Your task to perform on an android device: Open the files app Image 0: 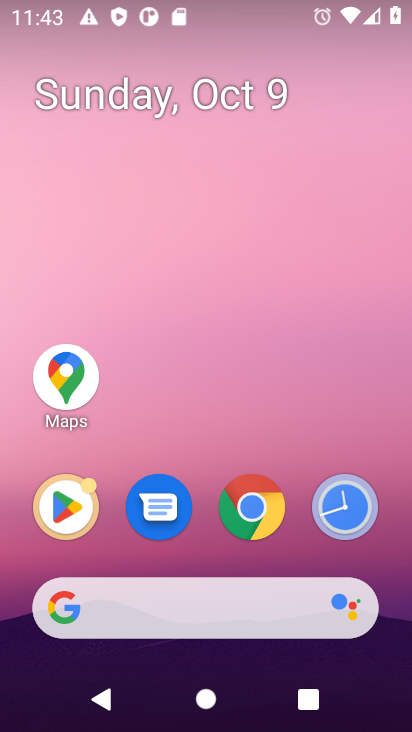
Step 0: drag from (383, 407) to (391, 25)
Your task to perform on an android device: Open the files app Image 1: 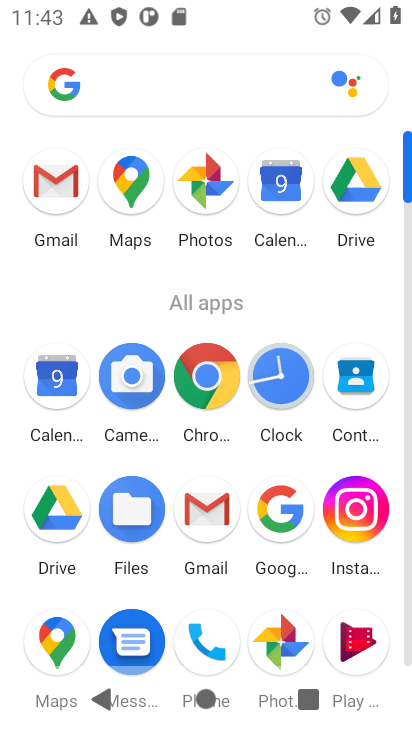
Step 1: drag from (382, 321) to (376, 73)
Your task to perform on an android device: Open the files app Image 2: 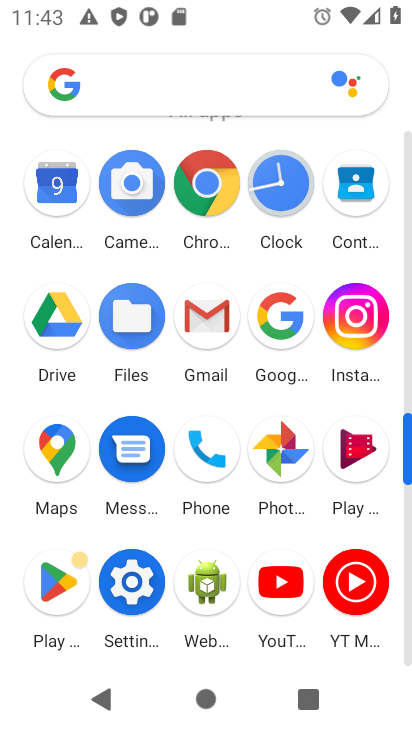
Step 2: click (64, 583)
Your task to perform on an android device: Open the files app Image 3: 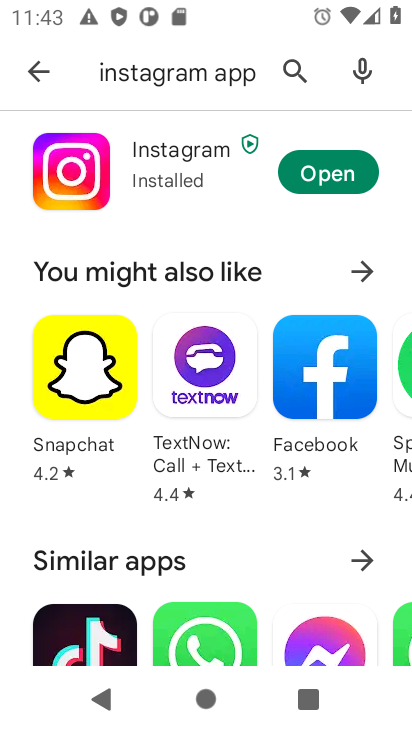
Step 3: press back button
Your task to perform on an android device: Open the files app Image 4: 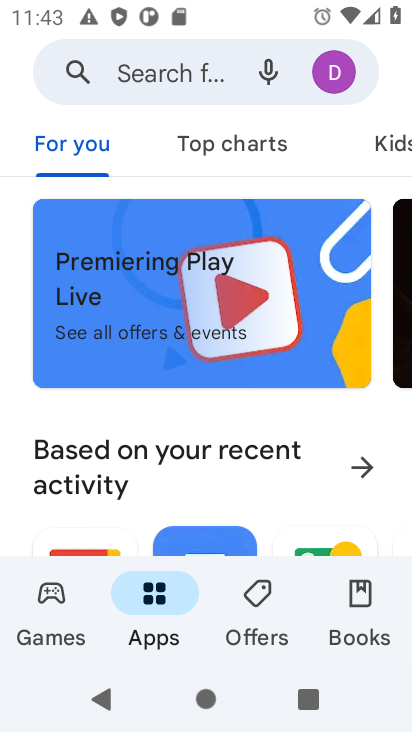
Step 4: click (173, 78)
Your task to perform on an android device: Open the files app Image 5: 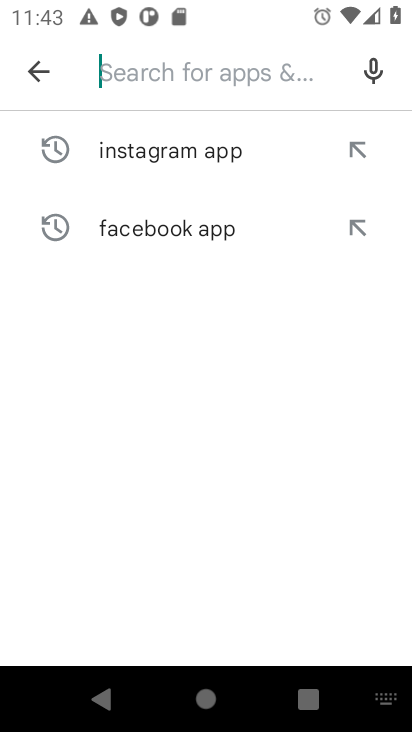
Step 5: type "files app"
Your task to perform on an android device: Open the files app Image 6: 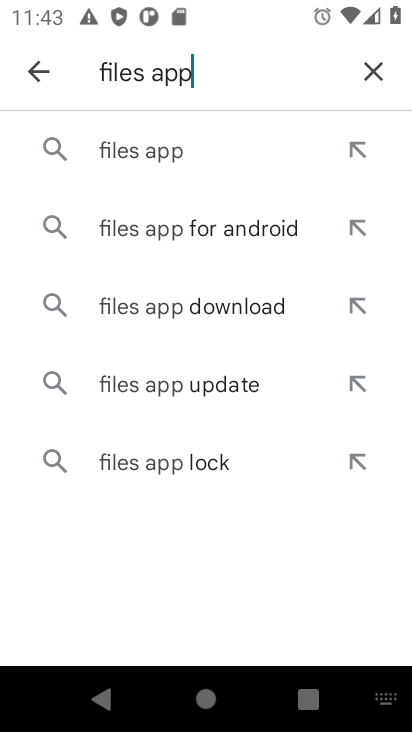
Step 6: press enter
Your task to perform on an android device: Open the files app Image 7: 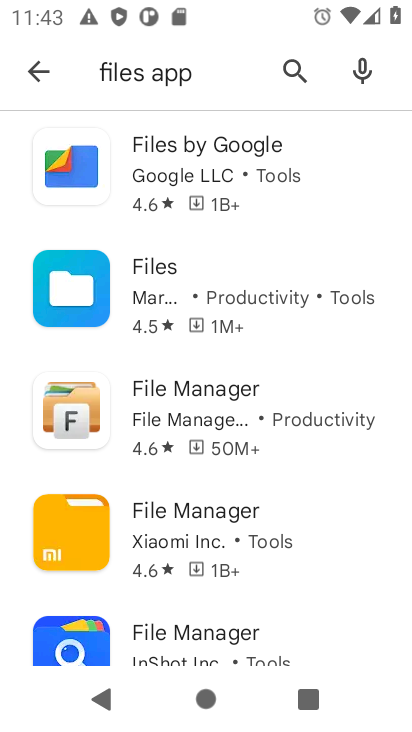
Step 7: click (220, 158)
Your task to perform on an android device: Open the files app Image 8: 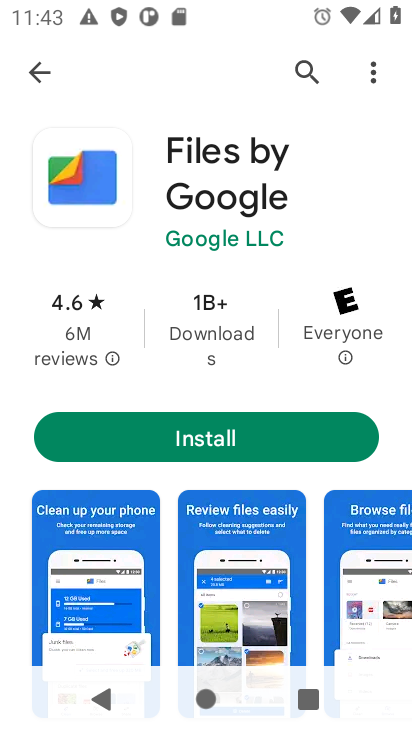
Step 8: task complete